Your task to perform on an android device: See recent photos Image 0: 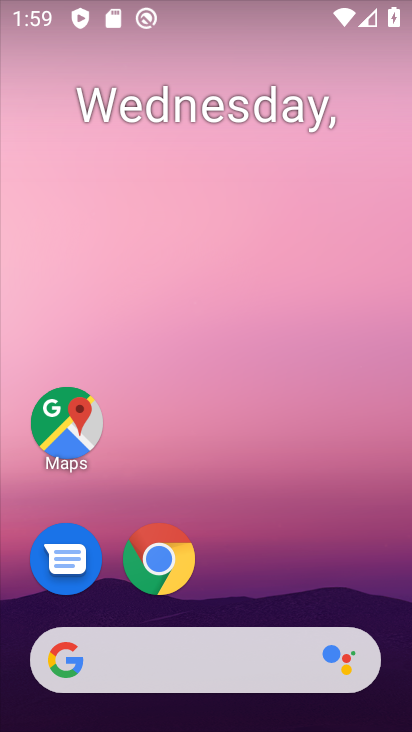
Step 0: drag from (226, 575) to (239, 87)
Your task to perform on an android device: See recent photos Image 1: 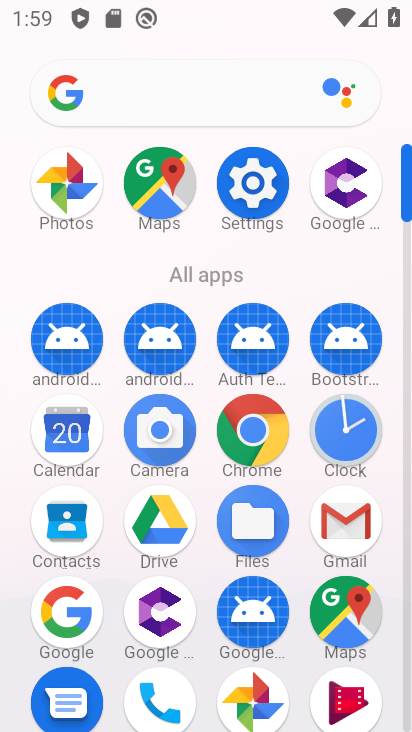
Step 1: click (244, 692)
Your task to perform on an android device: See recent photos Image 2: 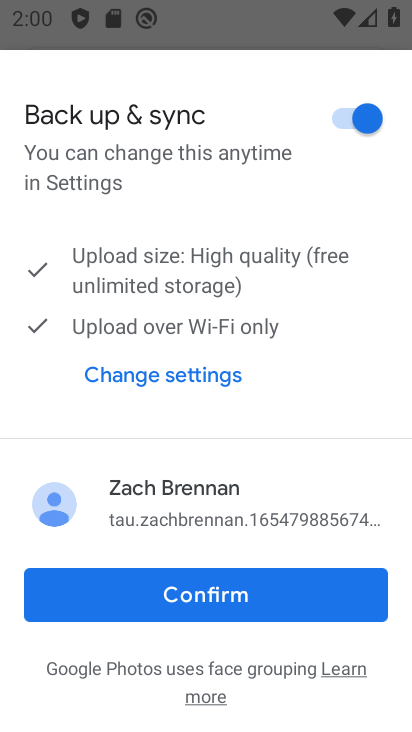
Step 2: click (191, 584)
Your task to perform on an android device: See recent photos Image 3: 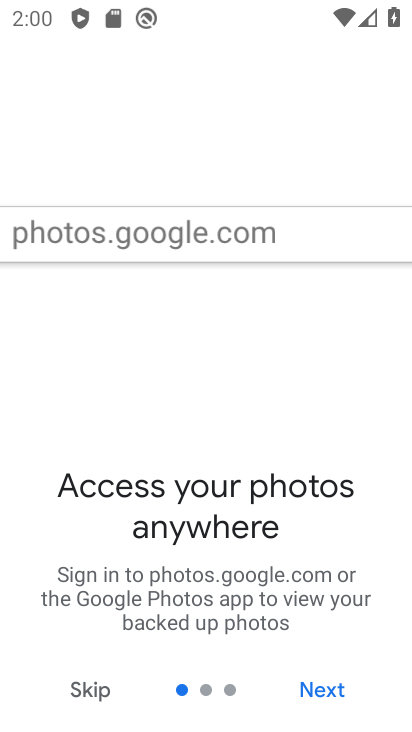
Step 3: click (85, 672)
Your task to perform on an android device: See recent photos Image 4: 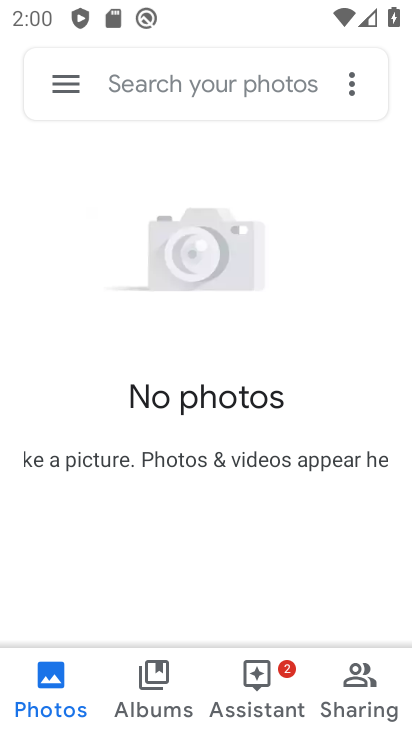
Step 4: click (39, 653)
Your task to perform on an android device: See recent photos Image 5: 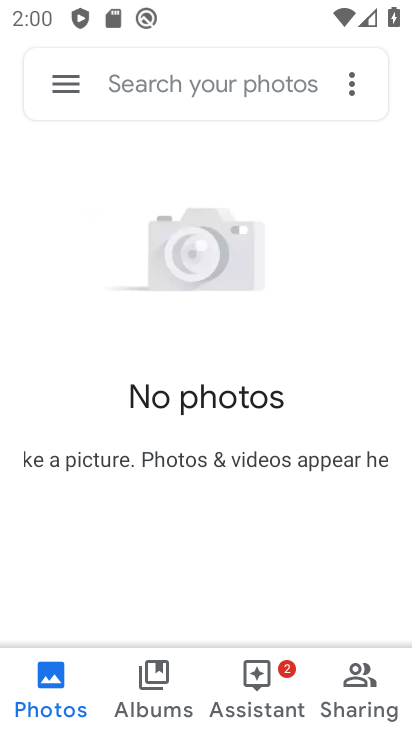
Step 5: task complete